Your task to perform on an android device: open a bookmark in the chrome app Image 0: 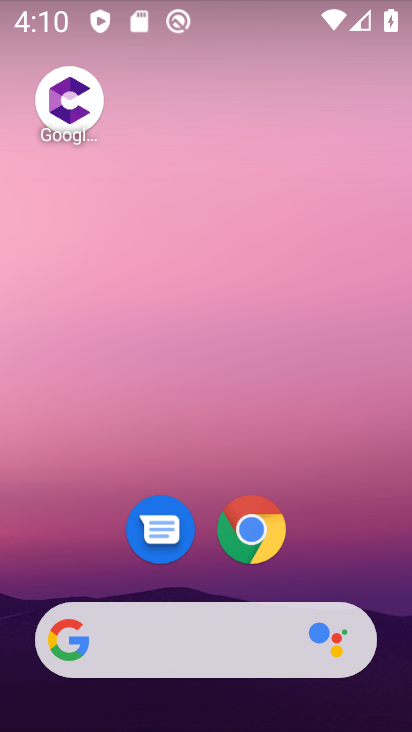
Step 0: click (252, 533)
Your task to perform on an android device: open a bookmark in the chrome app Image 1: 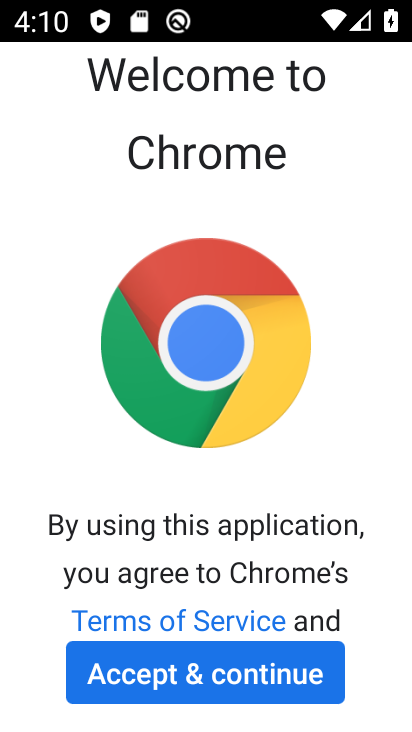
Step 1: click (179, 681)
Your task to perform on an android device: open a bookmark in the chrome app Image 2: 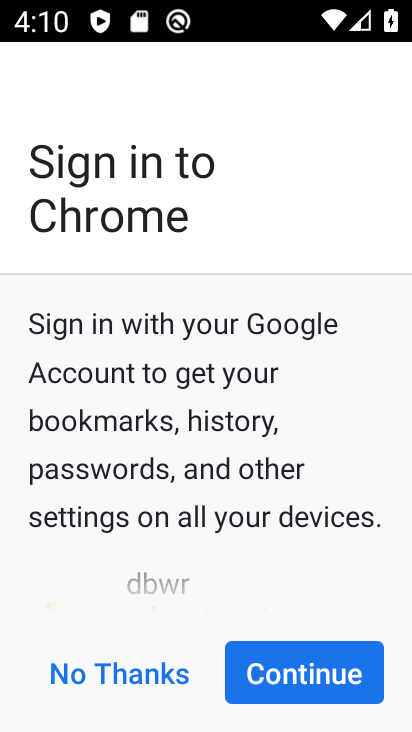
Step 2: click (330, 679)
Your task to perform on an android device: open a bookmark in the chrome app Image 3: 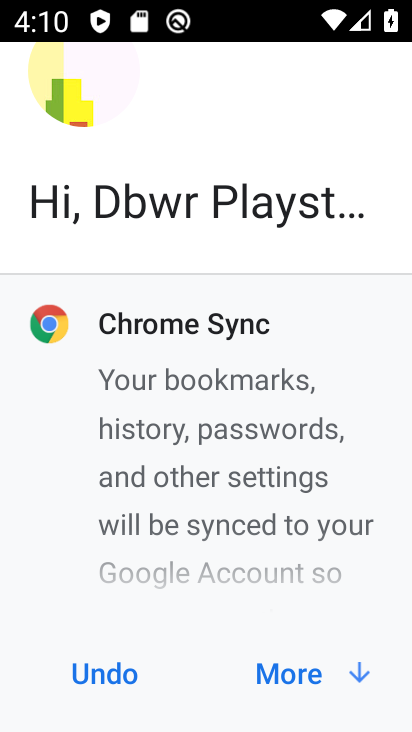
Step 3: click (317, 669)
Your task to perform on an android device: open a bookmark in the chrome app Image 4: 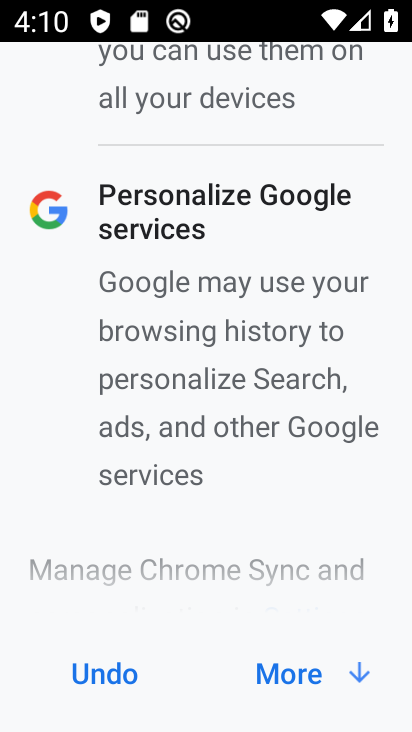
Step 4: click (314, 672)
Your task to perform on an android device: open a bookmark in the chrome app Image 5: 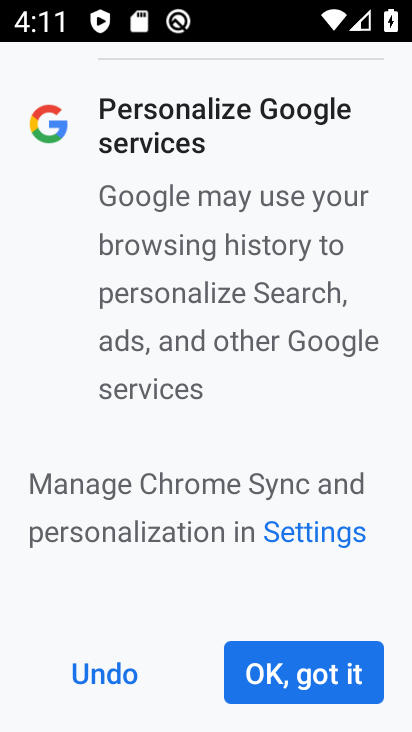
Step 5: click (307, 692)
Your task to perform on an android device: open a bookmark in the chrome app Image 6: 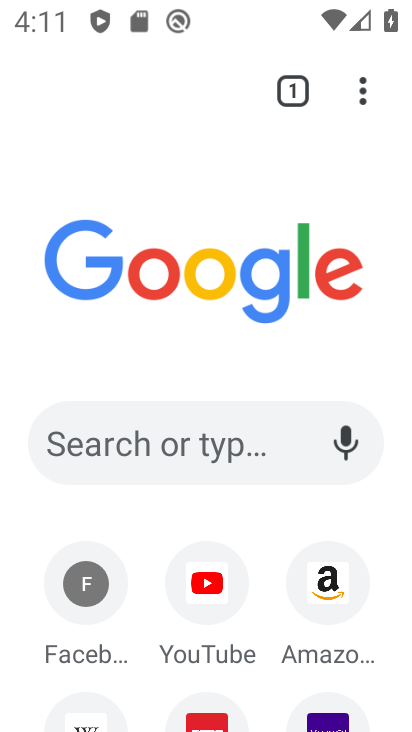
Step 6: click (360, 90)
Your task to perform on an android device: open a bookmark in the chrome app Image 7: 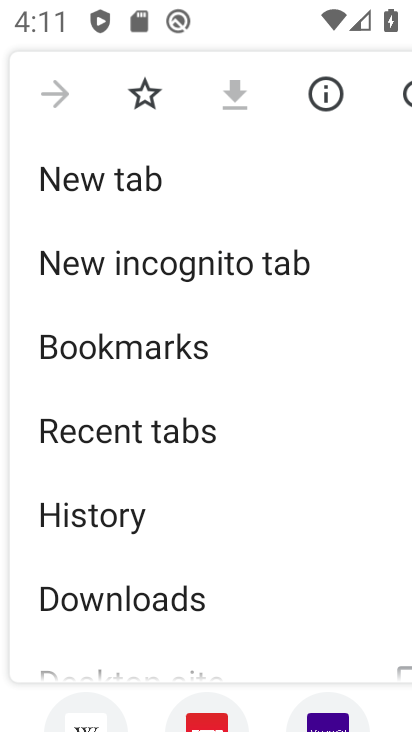
Step 7: drag from (209, 563) to (225, 161)
Your task to perform on an android device: open a bookmark in the chrome app Image 8: 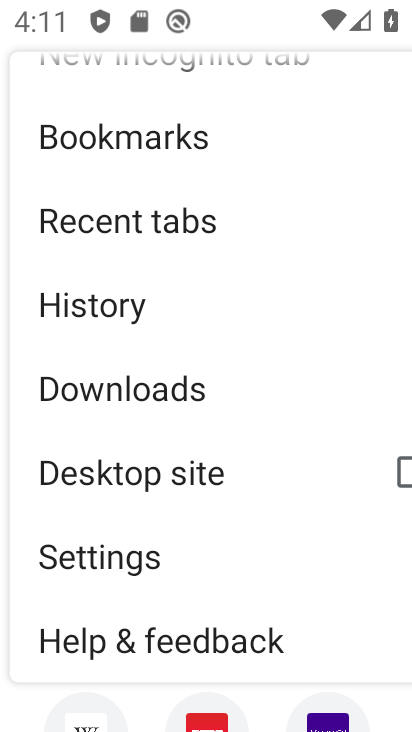
Step 8: click (217, 127)
Your task to perform on an android device: open a bookmark in the chrome app Image 9: 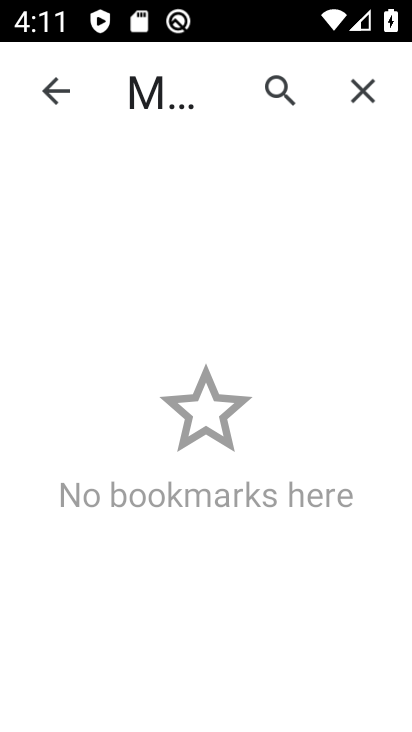
Step 9: task complete